Your task to perform on an android device: turn off smart reply in the gmail app Image 0: 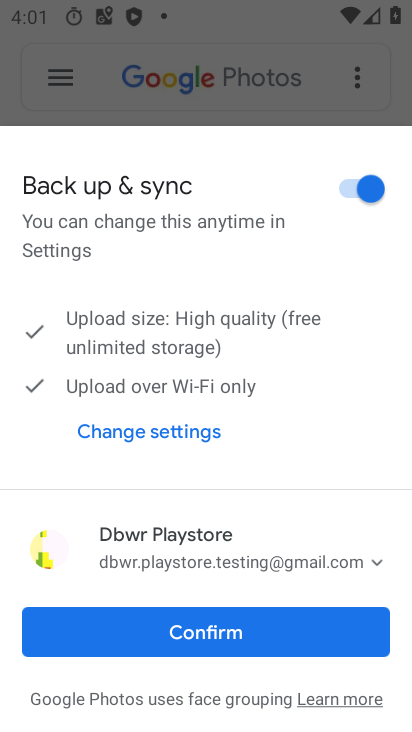
Step 0: press home button
Your task to perform on an android device: turn off smart reply in the gmail app Image 1: 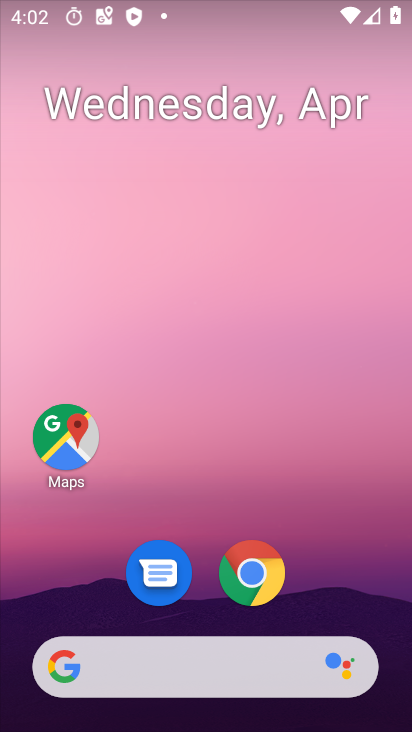
Step 1: click (370, 189)
Your task to perform on an android device: turn off smart reply in the gmail app Image 2: 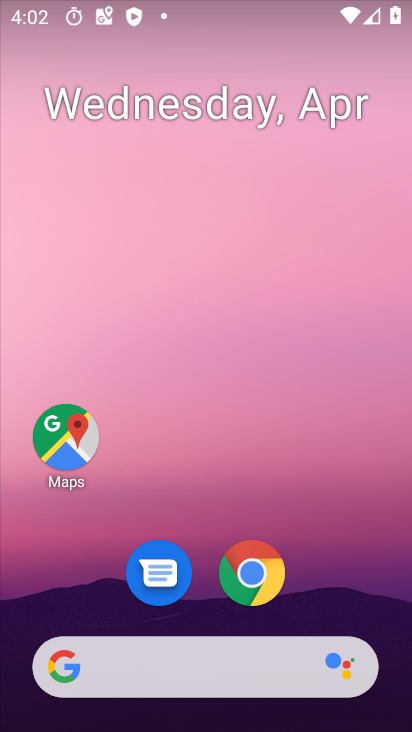
Step 2: drag from (336, 297) to (348, 146)
Your task to perform on an android device: turn off smart reply in the gmail app Image 3: 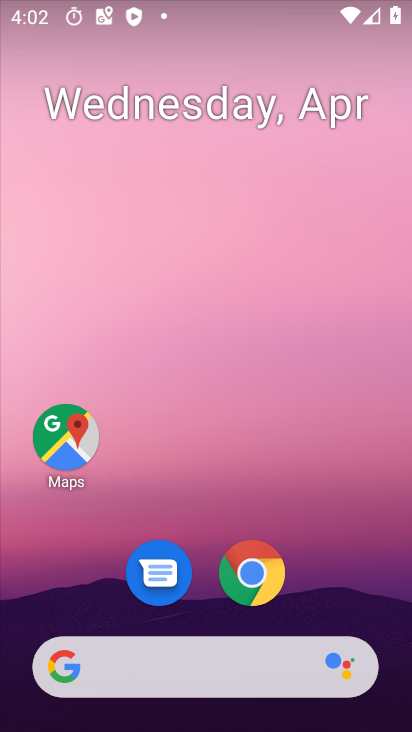
Step 3: drag from (382, 593) to (351, 83)
Your task to perform on an android device: turn off smart reply in the gmail app Image 4: 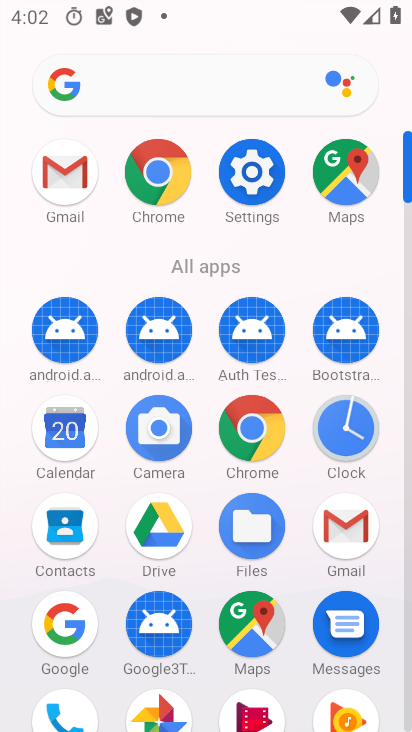
Step 4: click (335, 534)
Your task to perform on an android device: turn off smart reply in the gmail app Image 5: 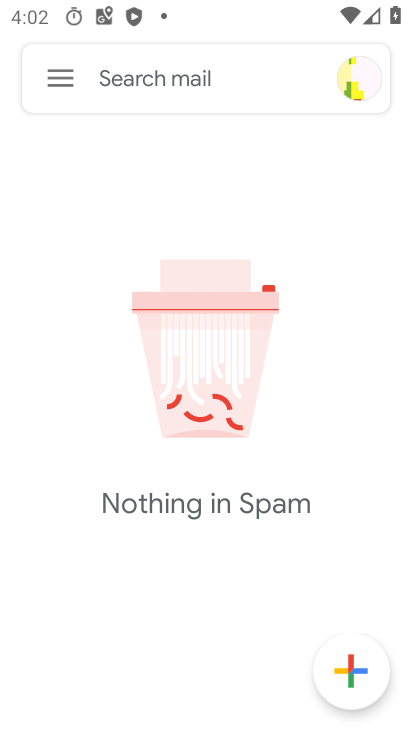
Step 5: click (58, 77)
Your task to perform on an android device: turn off smart reply in the gmail app Image 6: 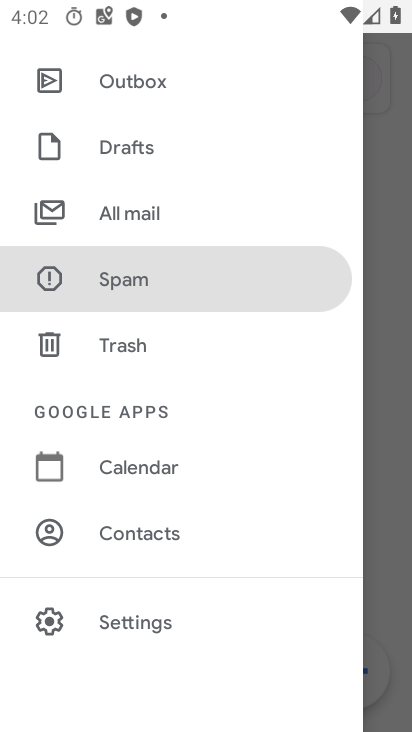
Step 6: click (133, 619)
Your task to perform on an android device: turn off smart reply in the gmail app Image 7: 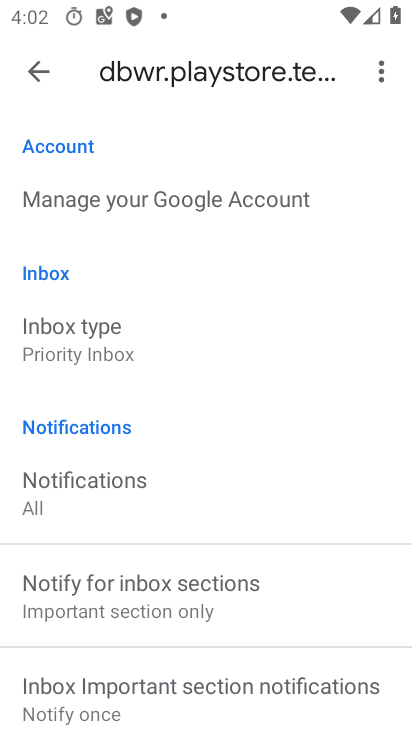
Step 7: drag from (338, 460) to (338, 340)
Your task to perform on an android device: turn off smart reply in the gmail app Image 8: 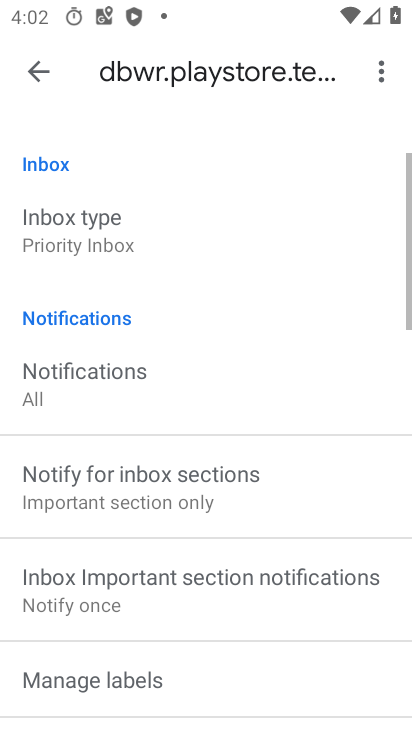
Step 8: drag from (351, 656) to (360, 220)
Your task to perform on an android device: turn off smart reply in the gmail app Image 9: 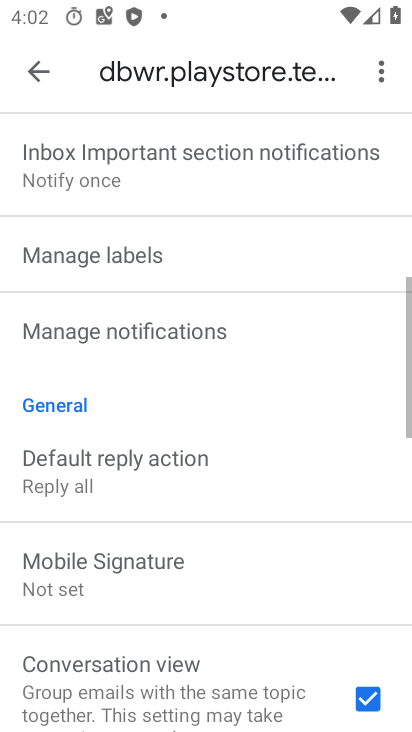
Step 9: drag from (341, 686) to (320, 229)
Your task to perform on an android device: turn off smart reply in the gmail app Image 10: 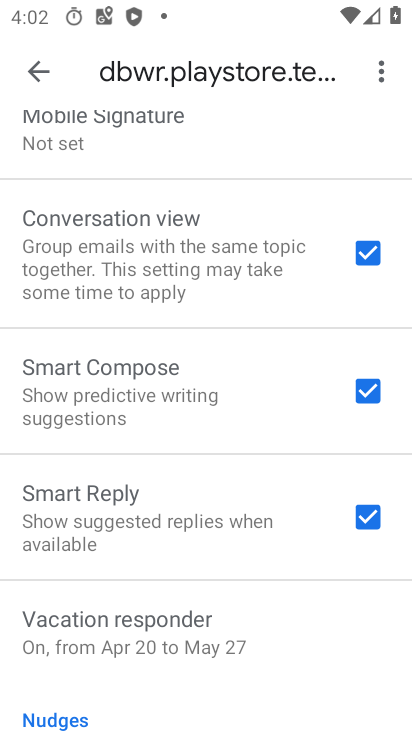
Step 10: click (359, 514)
Your task to perform on an android device: turn off smart reply in the gmail app Image 11: 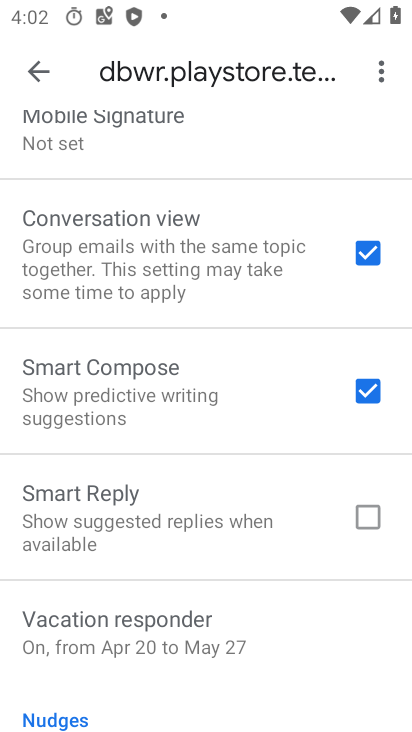
Step 11: task complete